Your task to perform on an android device: turn on airplane mode Image 0: 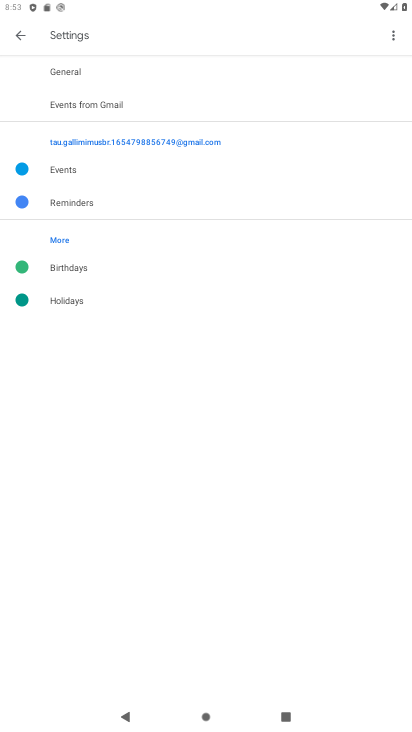
Step 0: press home button
Your task to perform on an android device: turn on airplane mode Image 1: 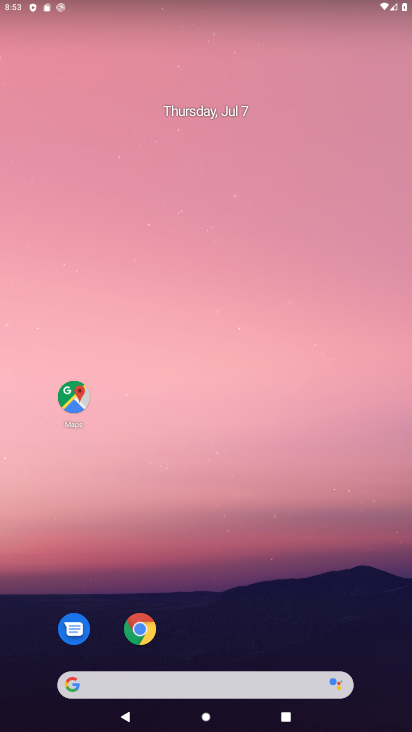
Step 1: drag from (237, 566) to (139, 77)
Your task to perform on an android device: turn on airplane mode Image 2: 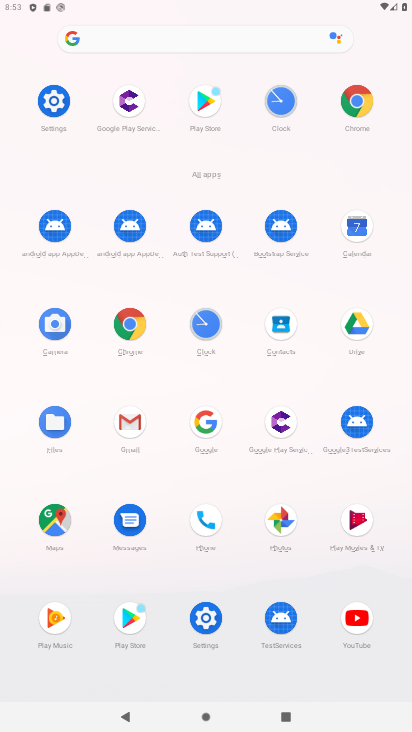
Step 2: click (54, 97)
Your task to perform on an android device: turn on airplane mode Image 3: 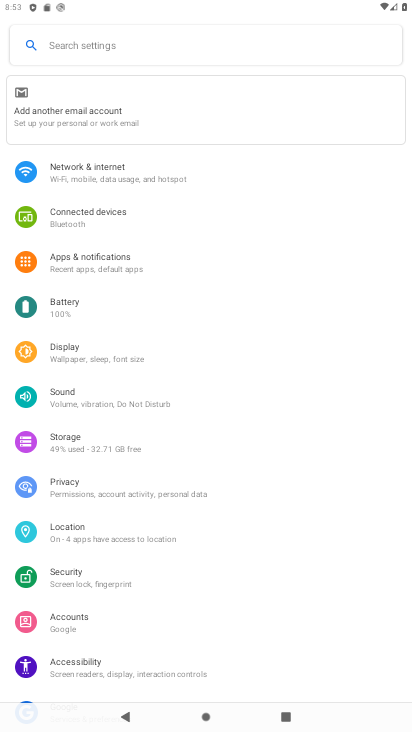
Step 3: click (92, 162)
Your task to perform on an android device: turn on airplane mode Image 4: 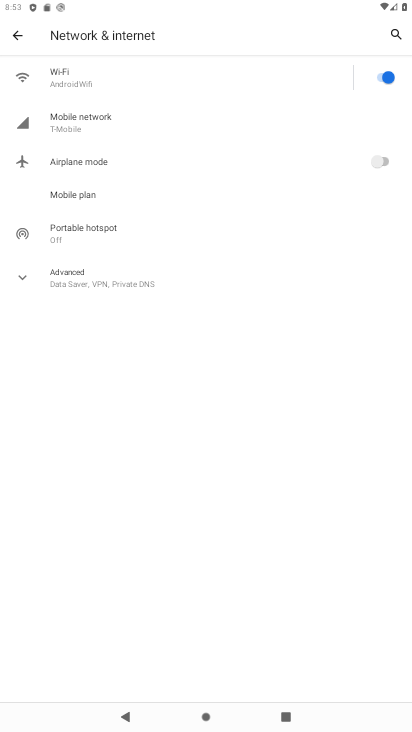
Step 4: click (380, 159)
Your task to perform on an android device: turn on airplane mode Image 5: 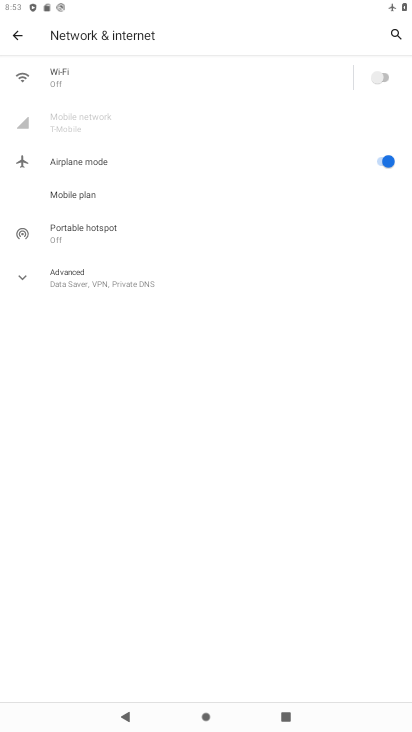
Step 5: task complete